Your task to perform on an android device: Turn off the flashlight Image 0: 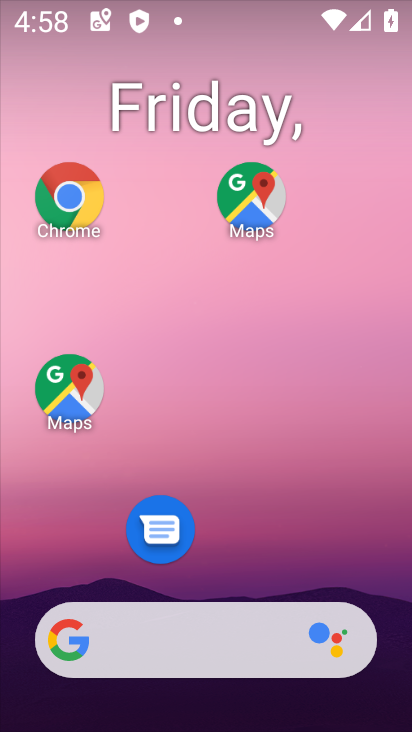
Step 0: drag from (251, 571) to (210, 153)
Your task to perform on an android device: Turn off the flashlight Image 1: 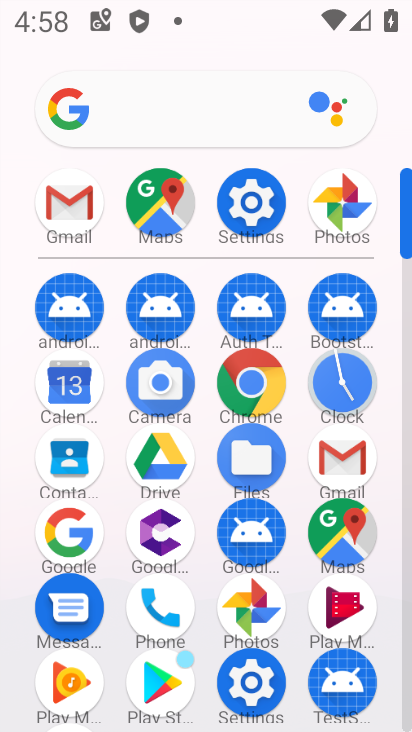
Step 1: click (252, 188)
Your task to perform on an android device: Turn off the flashlight Image 2: 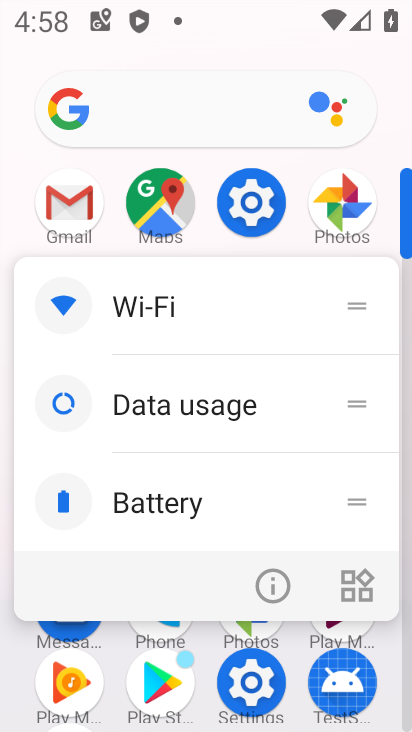
Step 2: click (244, 204)
Your task to perform on an android device: Turn off the flashlight Image 3: 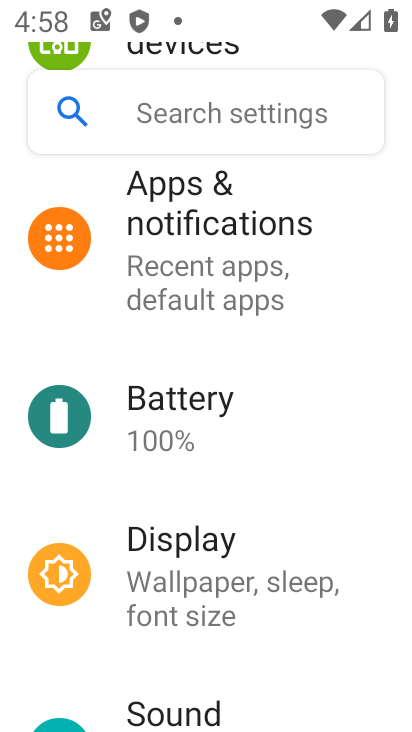
Step 3: task complete